Your task to perform on an android device: remove spam from my inbox in the gmail app Image 0: 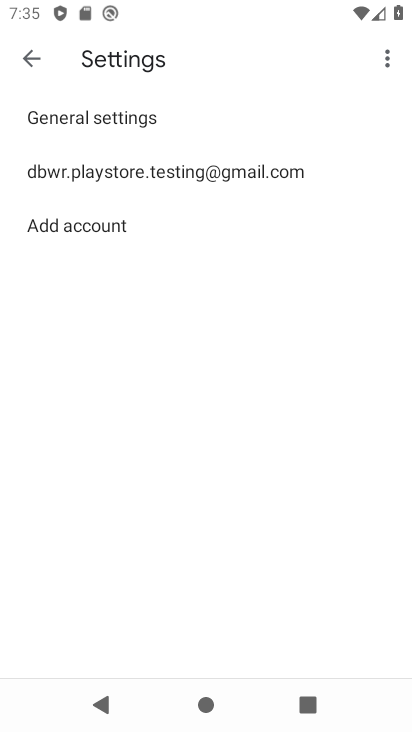
Step 0: click (34, 61)
Your task to perform on an android device: remove spam from my inbox in the gmail app Image 1: 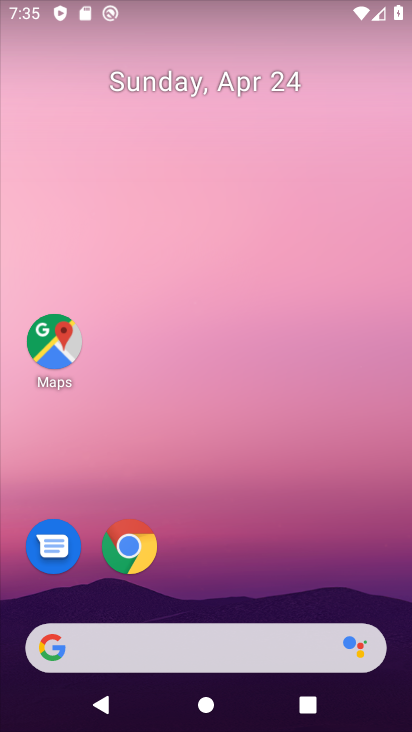
Step 1: drag from (205, 552) to (183, 41)
Your task to perform on an android device: remove spam from my inbox in the gmail app Image 2: 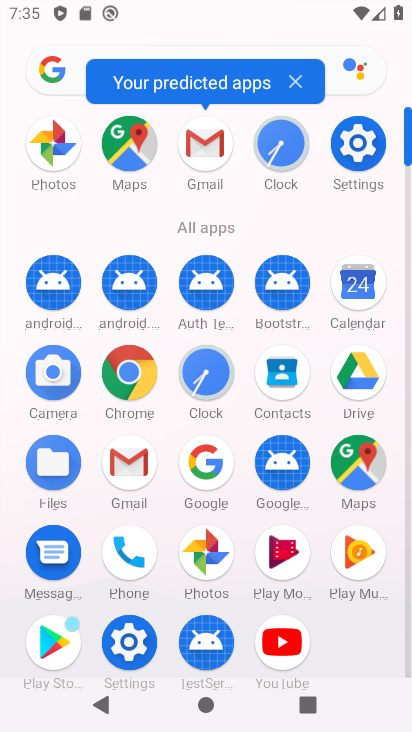
Step 2: click (218, 135)
Your task to perform on an android device: remove spam from my inbox in the gmail app Image 3: 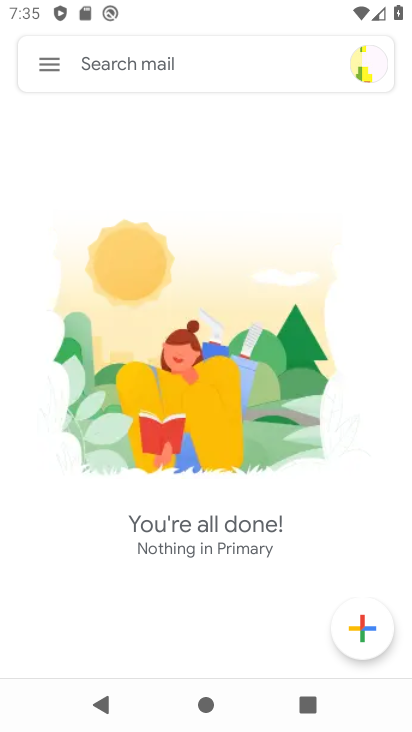
Step 3: click (43, 59)
Your task to perform on an android device: remove spam from my inbox in the gmail app Image 4: 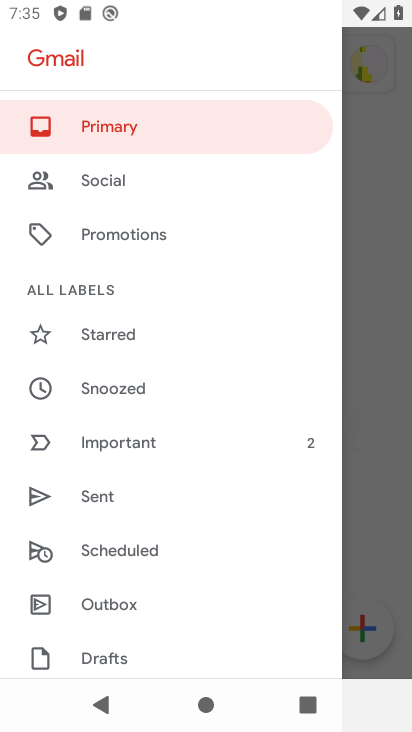
Step 4: drag from (113, 495) to (140, 258)
Your task to perform on an android device: remove spam from my inbox in the gmail app Image 5: 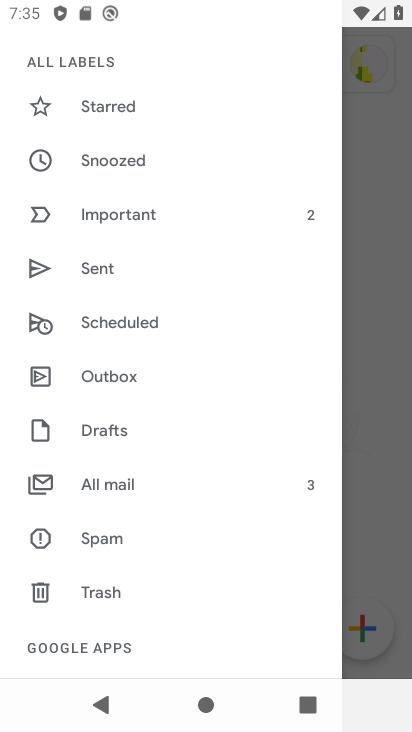
Step 5: click (259, 481)
Your task to perform on an android device: remove spam from my inbox in the gmail app Image 6: 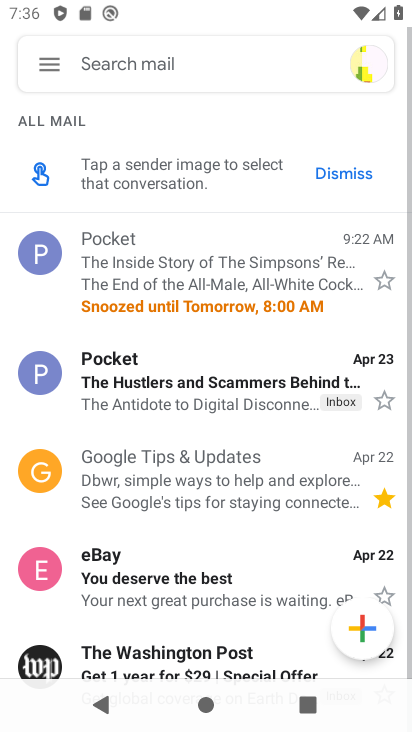
Step 6: click (32, 65)
Your task to perform on an android device: remove spam from my inbox in the gmail app Image 7: 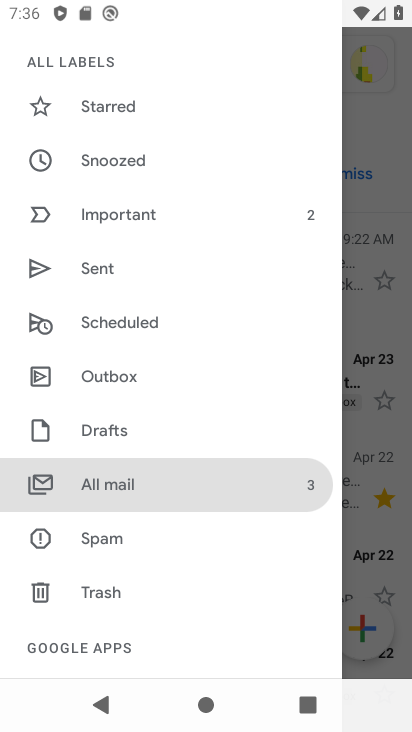
Step 7: drag from (111, 495) to (111, 230)
Your task to perform on an android device: remove spam from my inbox in the gmail app Image 8: 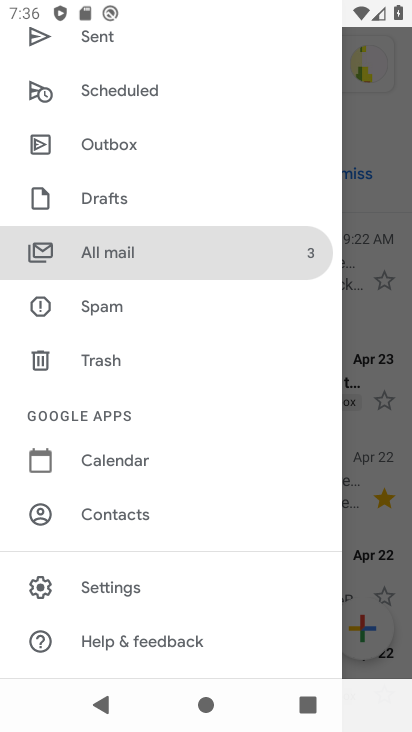
Step 8: click (110, 305)
Your task to perform on an android device: remove spam from my inbox in the gmail app Image 9: 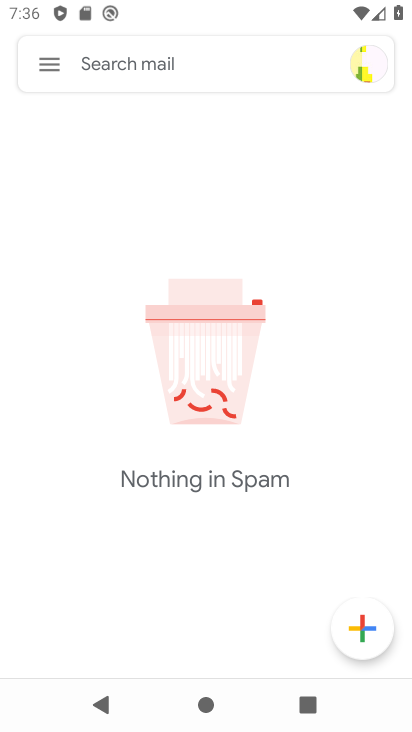
Step 9: task complete